Your task to perform on an android device: Open my contact list Image 0: 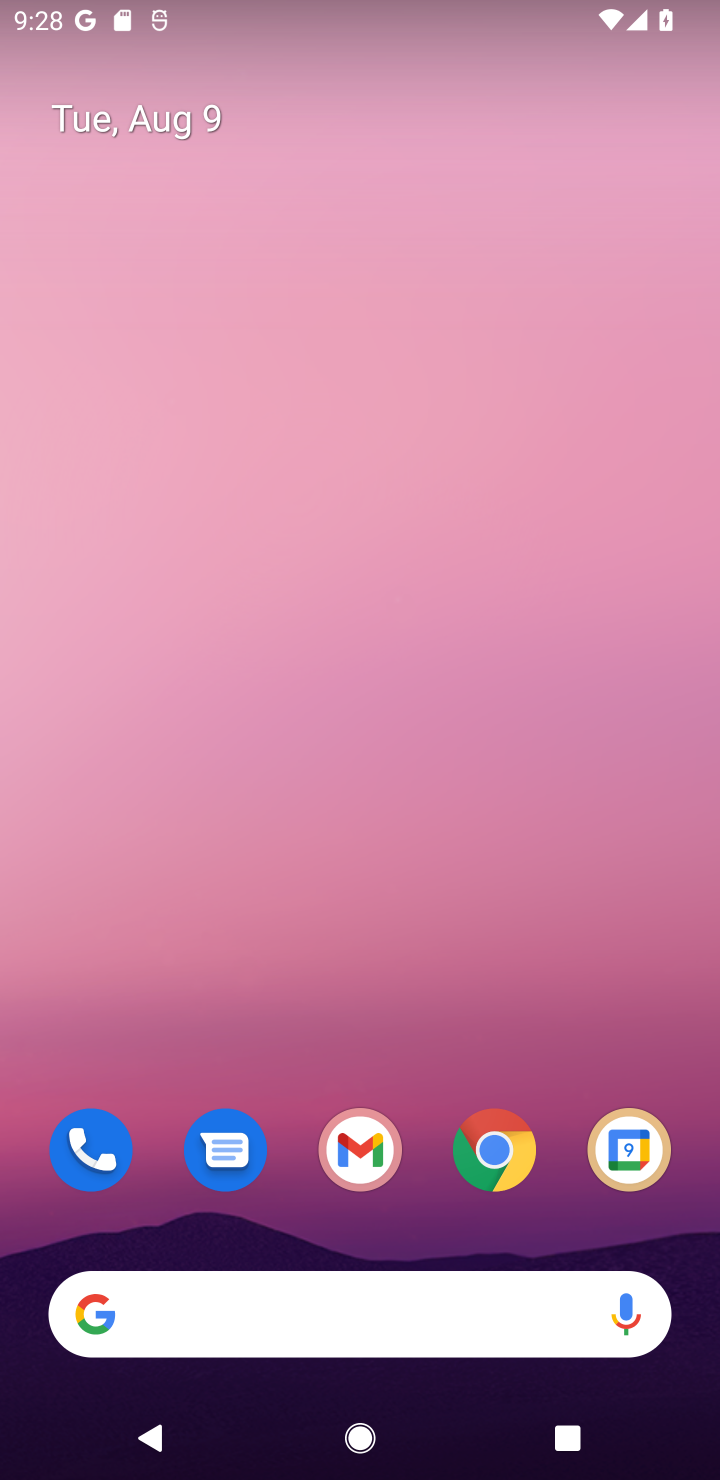
Step 0: drag from (372, 1295) to (553, 314)
Your task to perform on an android device: Open my contact list Image 1: 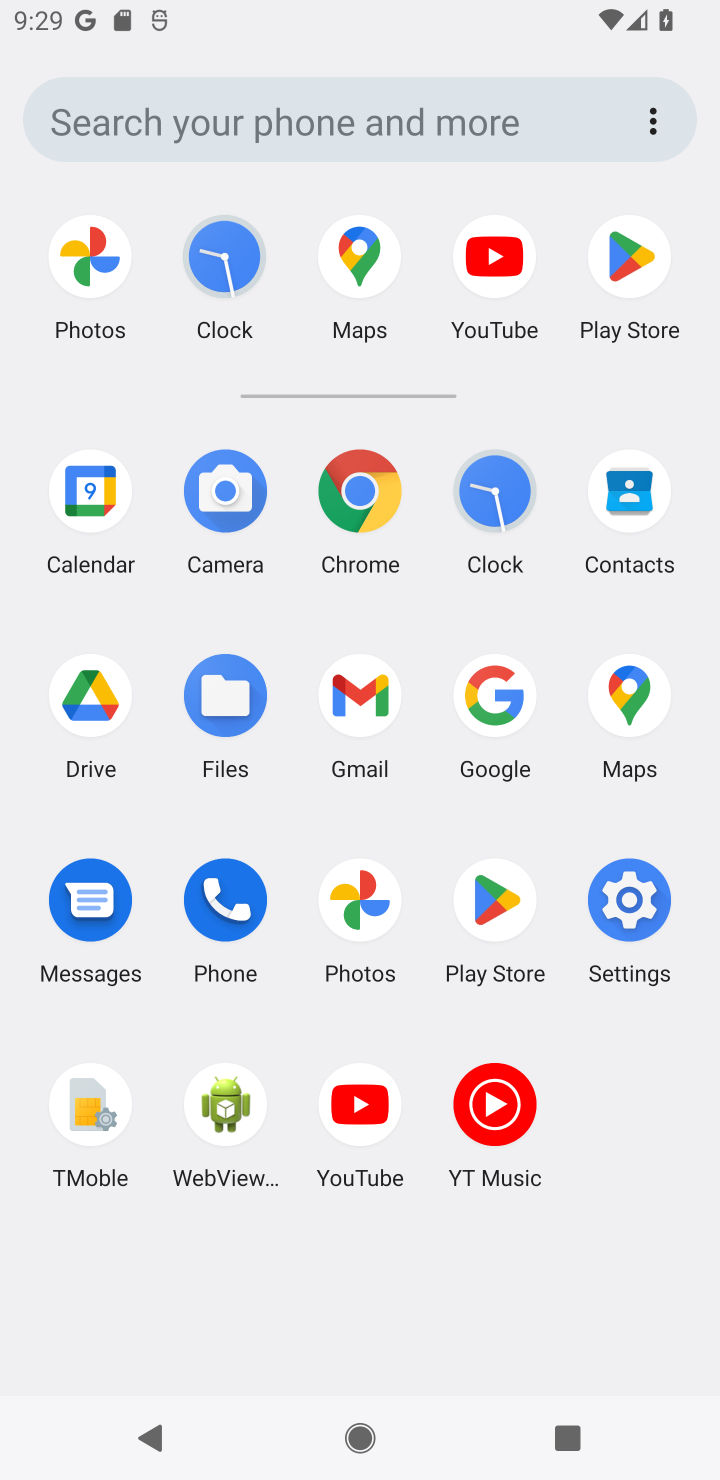
Step 1: click (608, 518)
Your task to perform on an android device: Open my contact list Image 2: 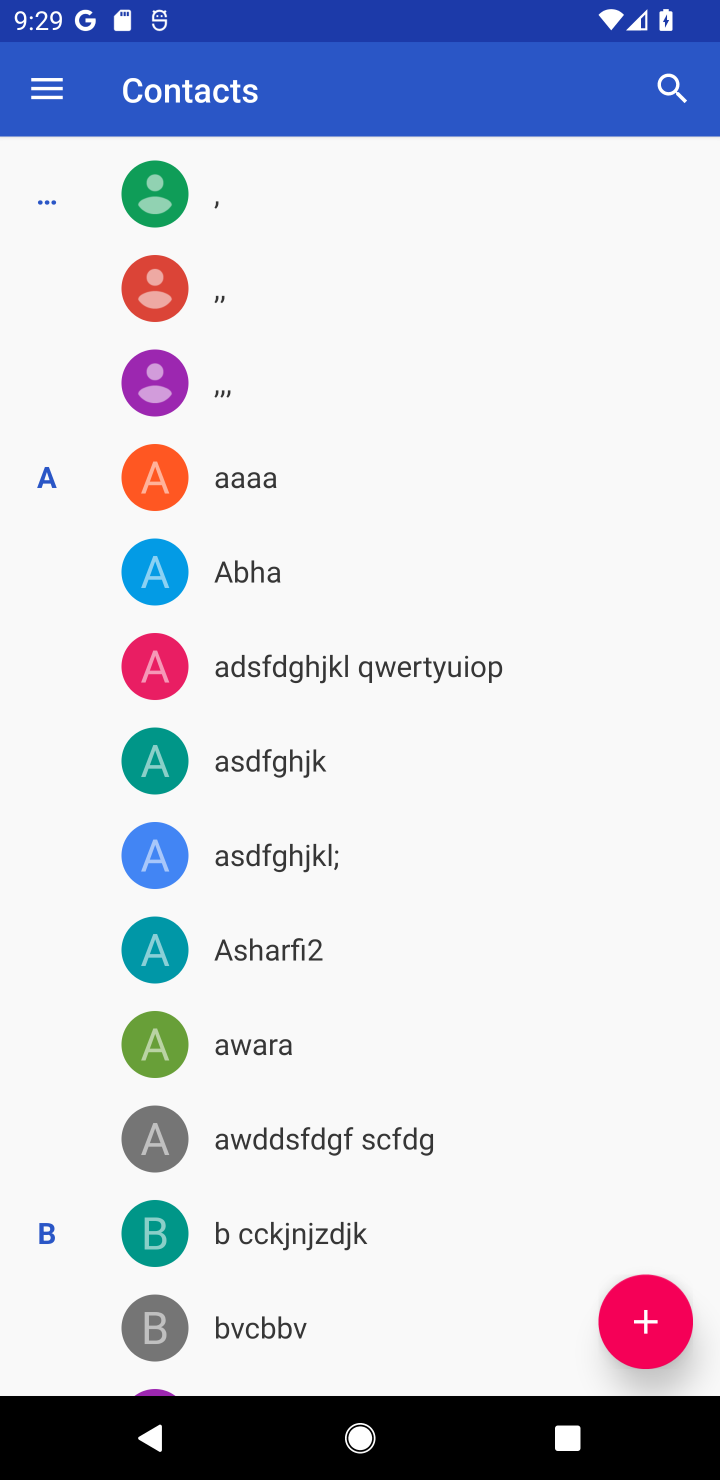
Step 2: task complete